Your task to perform on an android device: Open notification settings Image 0: 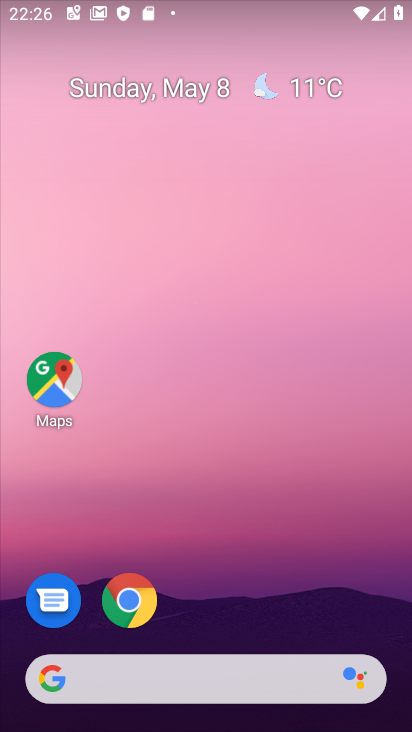
Step 0: drag from (222, 629) to (239, 0)
Your task to perform on an android device: Open notification settings Image 1: 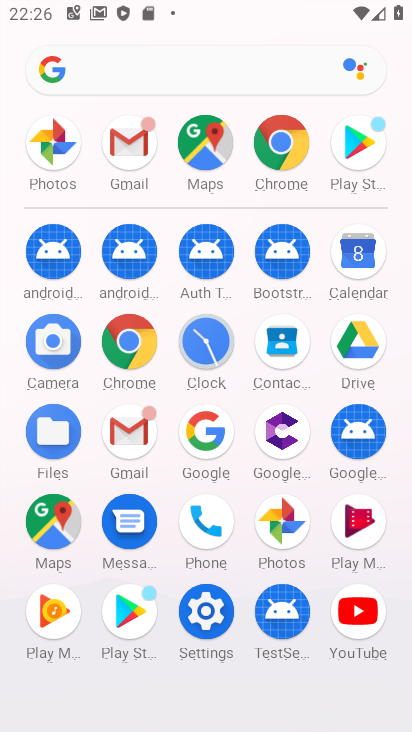
Step 1: click (201, 624)
Your task to perform on an android device: Open notification settings Image 2: 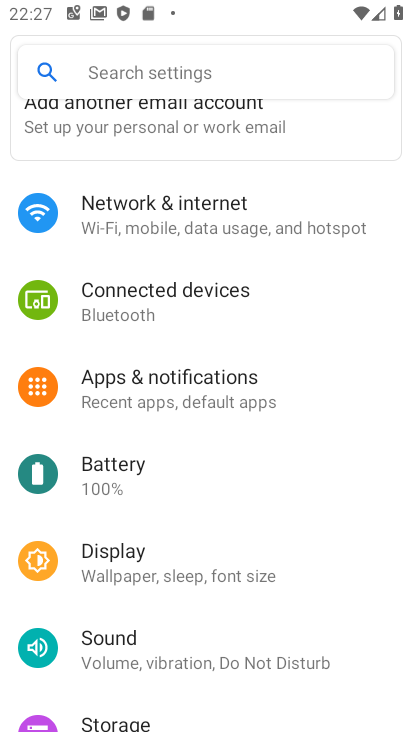
Step 2: click (177, 401)
Your task to perform on an android device: Open notification settings Image 3: 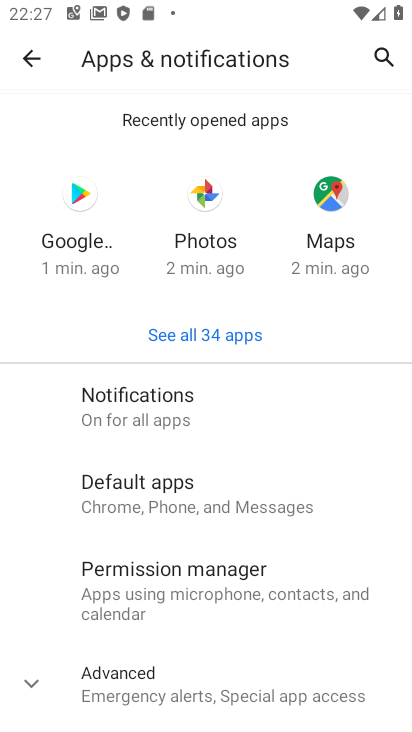
Step 3: task complete